Your task to perform on an android device: Go to Google maps Image 0: 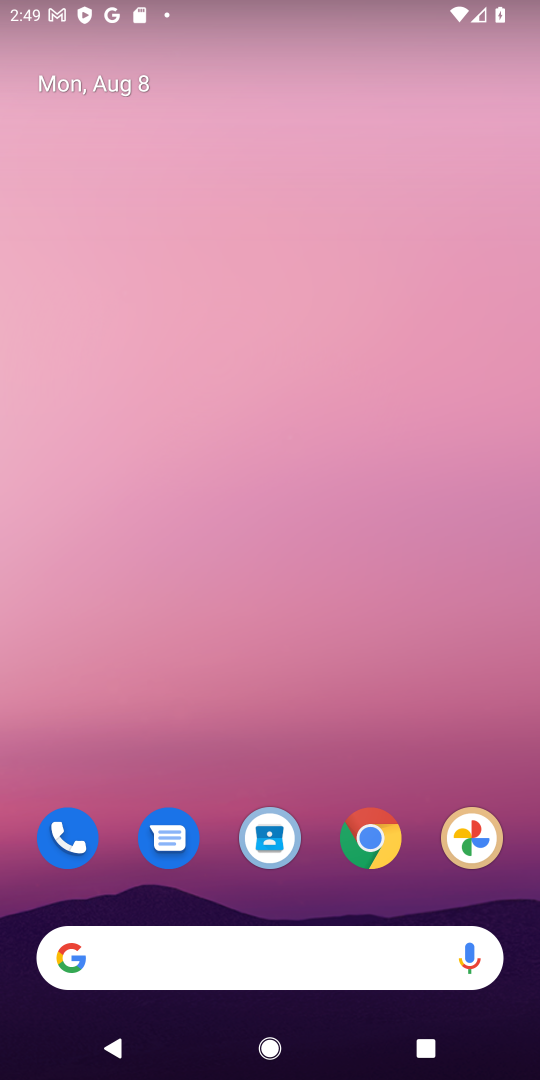
Step 0: drag from (327, 996) to (235, 25)
Your task to perform on an android device: Go to Google maps Image 1: 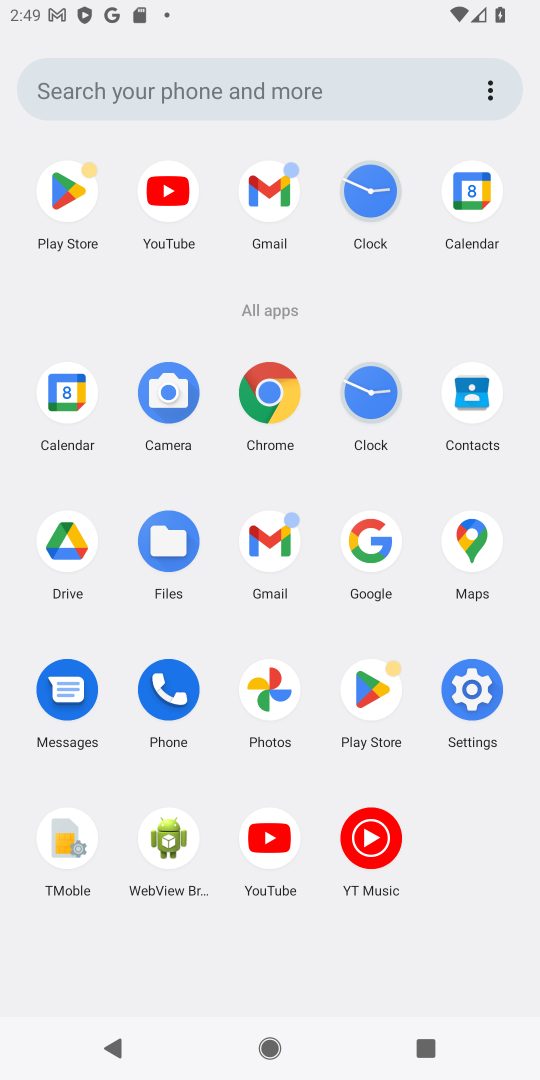
Step 1: click (470, 545)
Your task to perform on an android device: Go to Google maps Image 2: 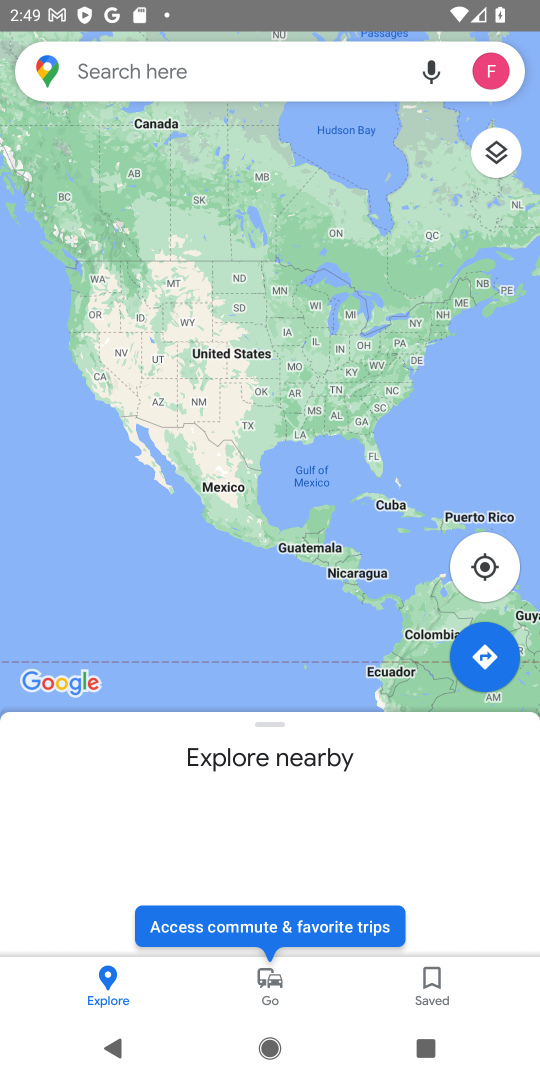
Step 2: task complete